Your task to perform on an android device: turn on showing notifications on the lock screen Image 0: 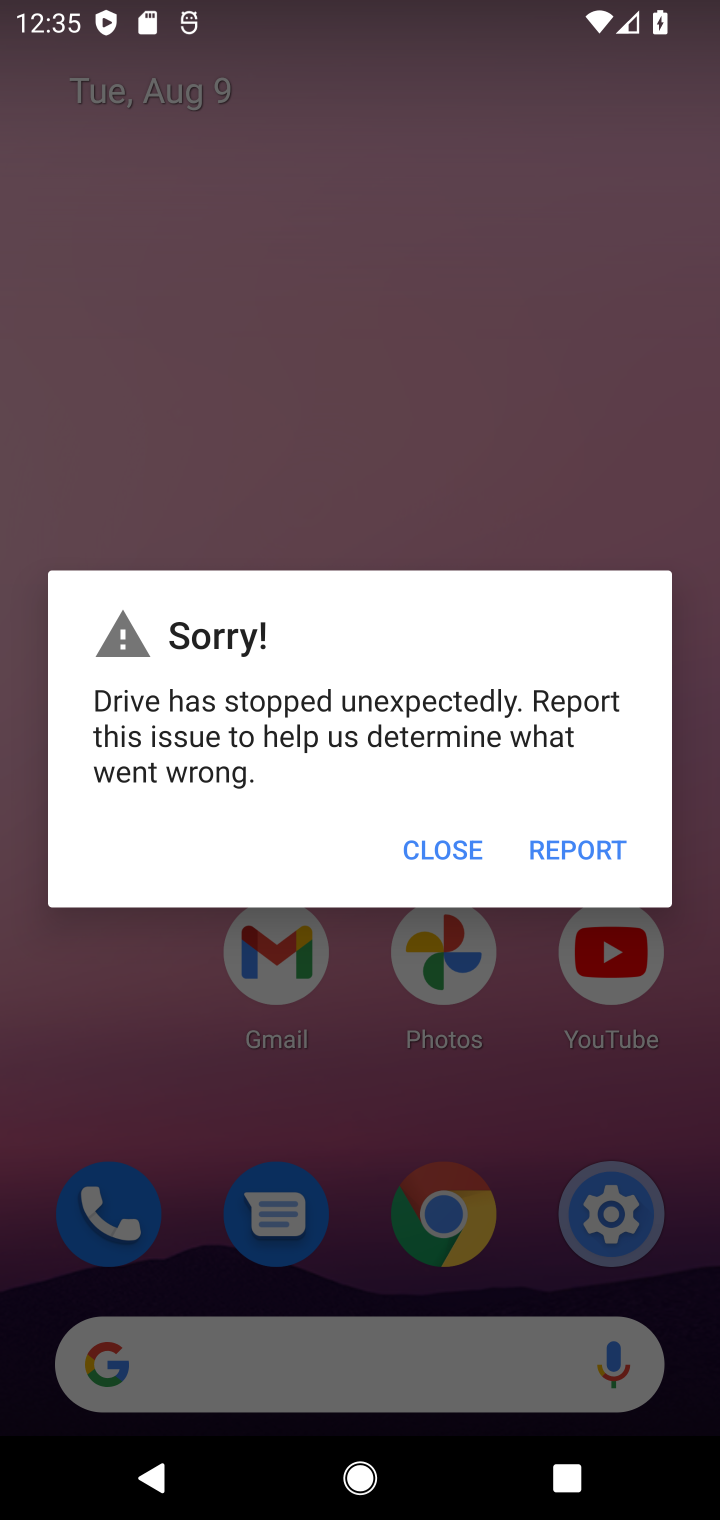
Step 0: press home button
Your task to perform on an android device: turn on showing notifications on the lock screen Image 1: 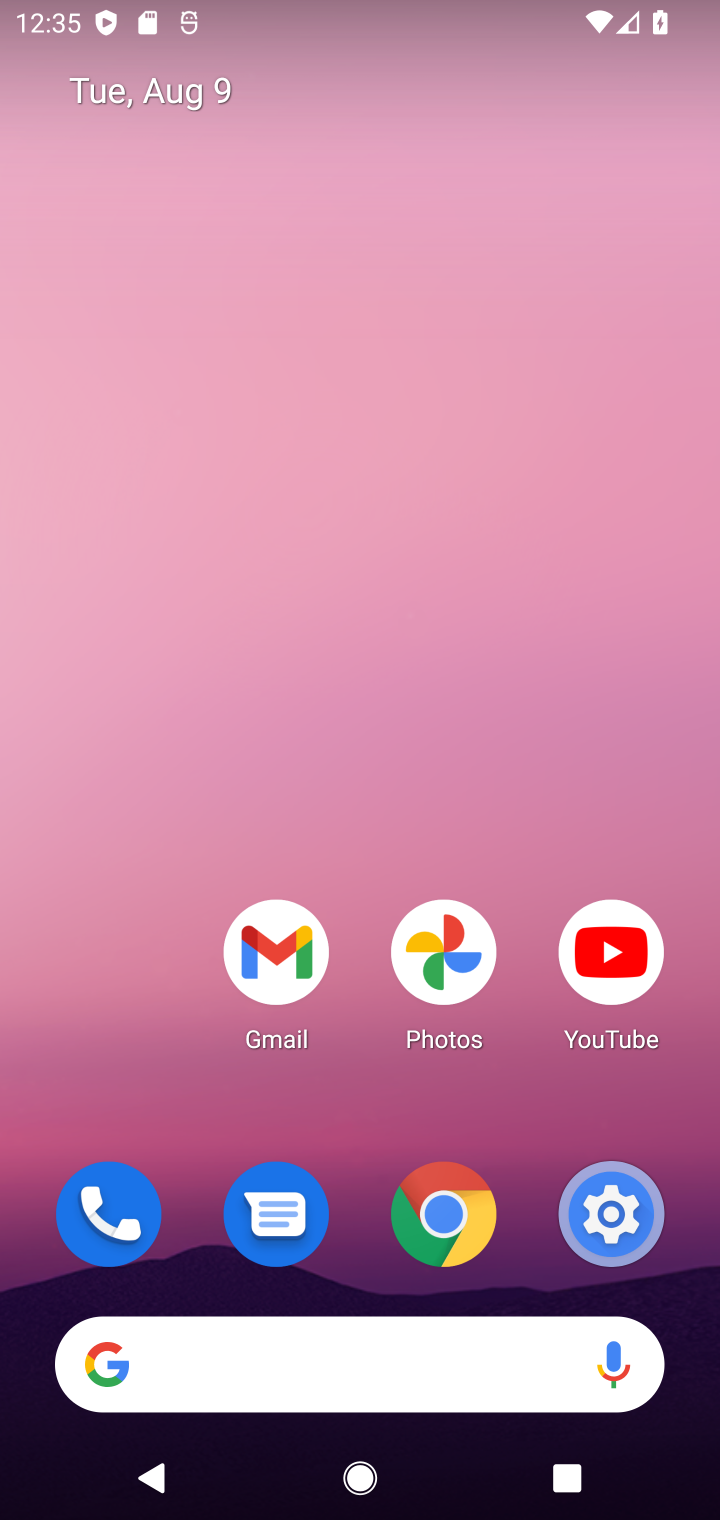
Step 1: click (613, 1224)
Your task to perform on an android device: turn on showing notifications on the lock screen Image 2: 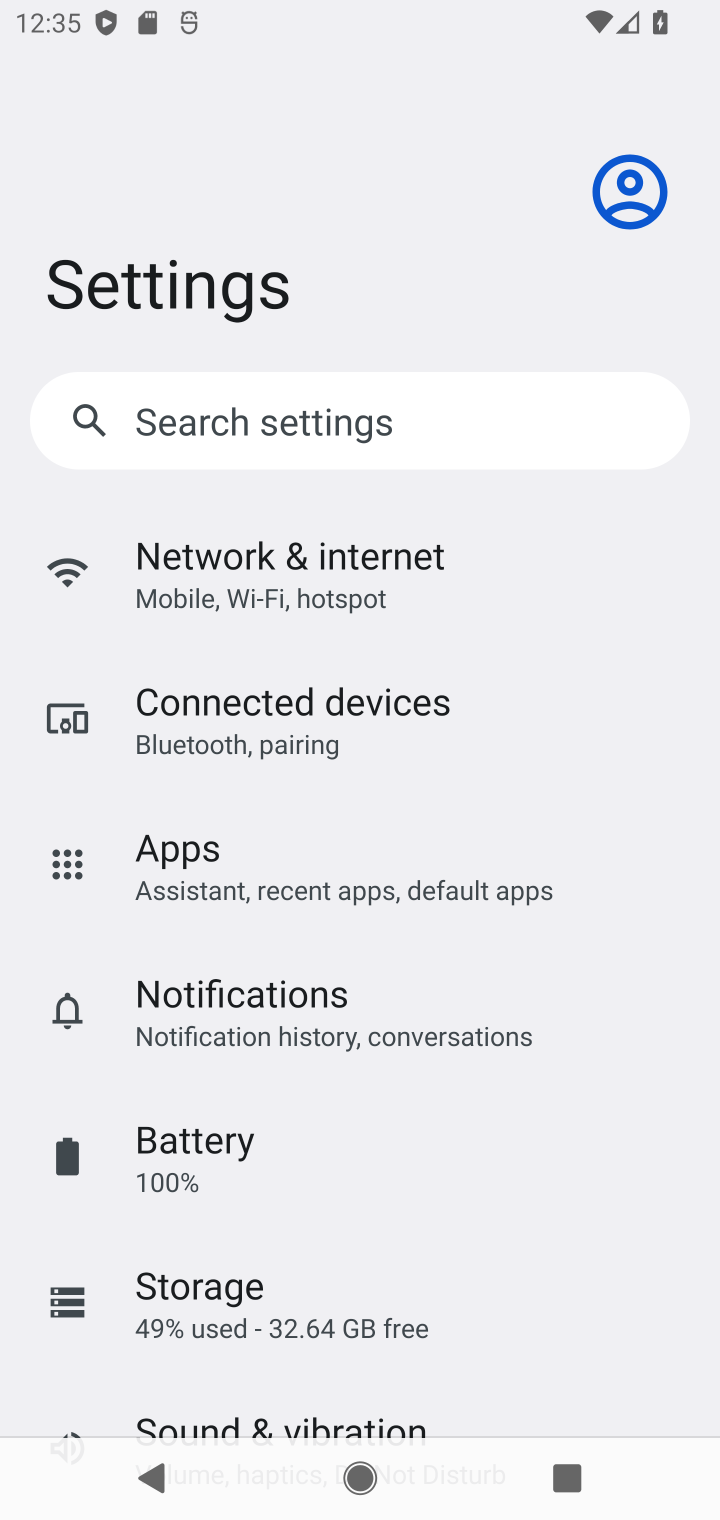
Step 2: press back button
Your task to perform on an android device: turn on showing notifications on the lock screen Image 3: 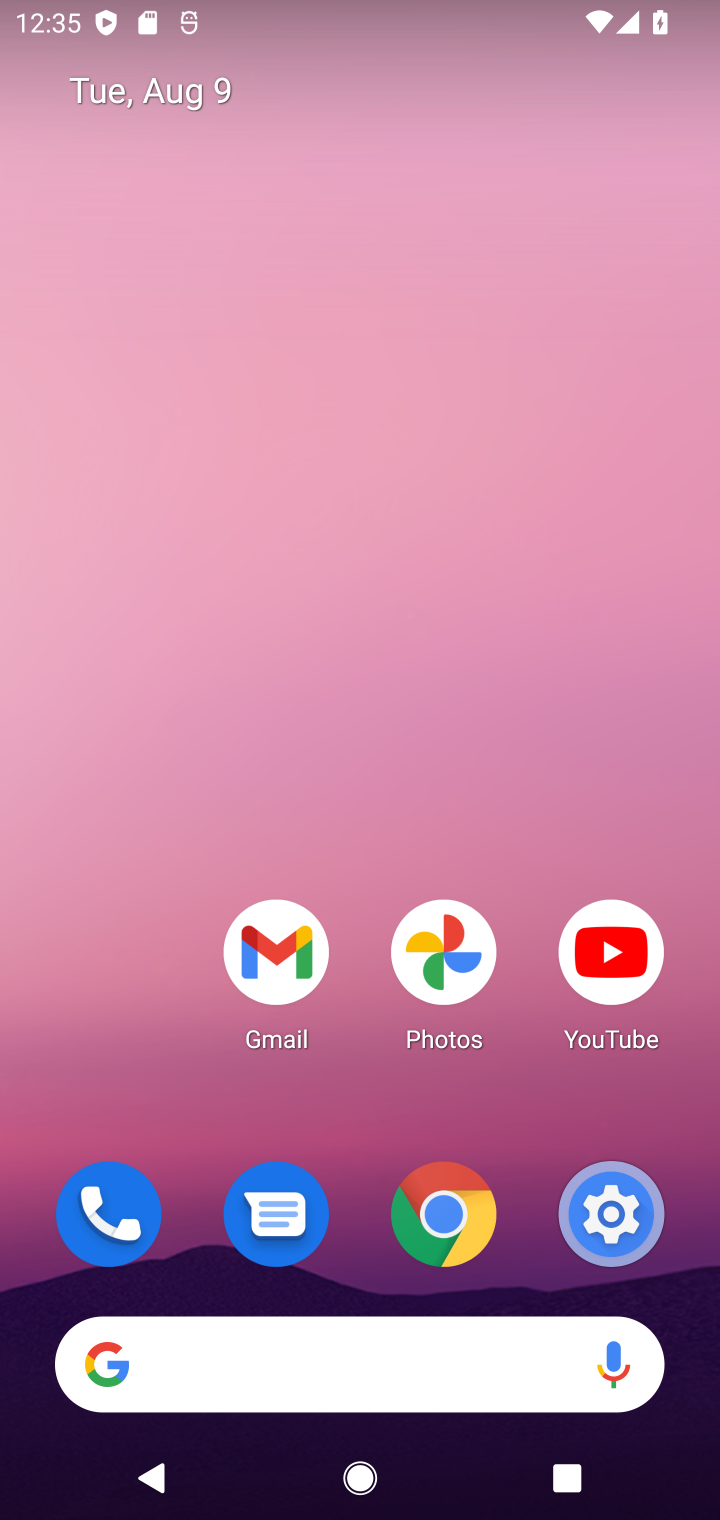
Step 3: click (622, 1215)
Your task to perform on an android device: turn on showing notifications on the lock screen Image 4: 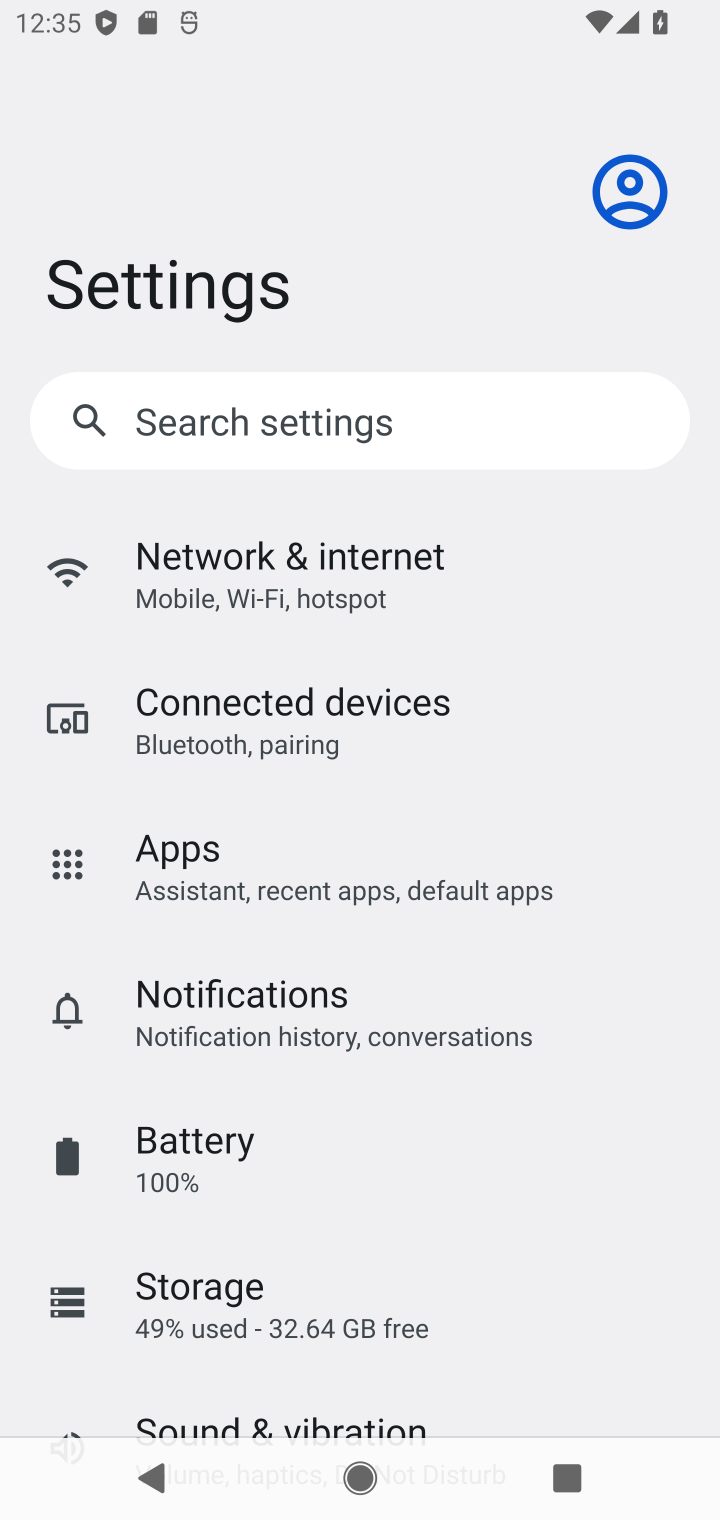
Step 4: click (237, 1285)
Your task to perform on an android device: turn on showing notifications on the lock screen Image 5: 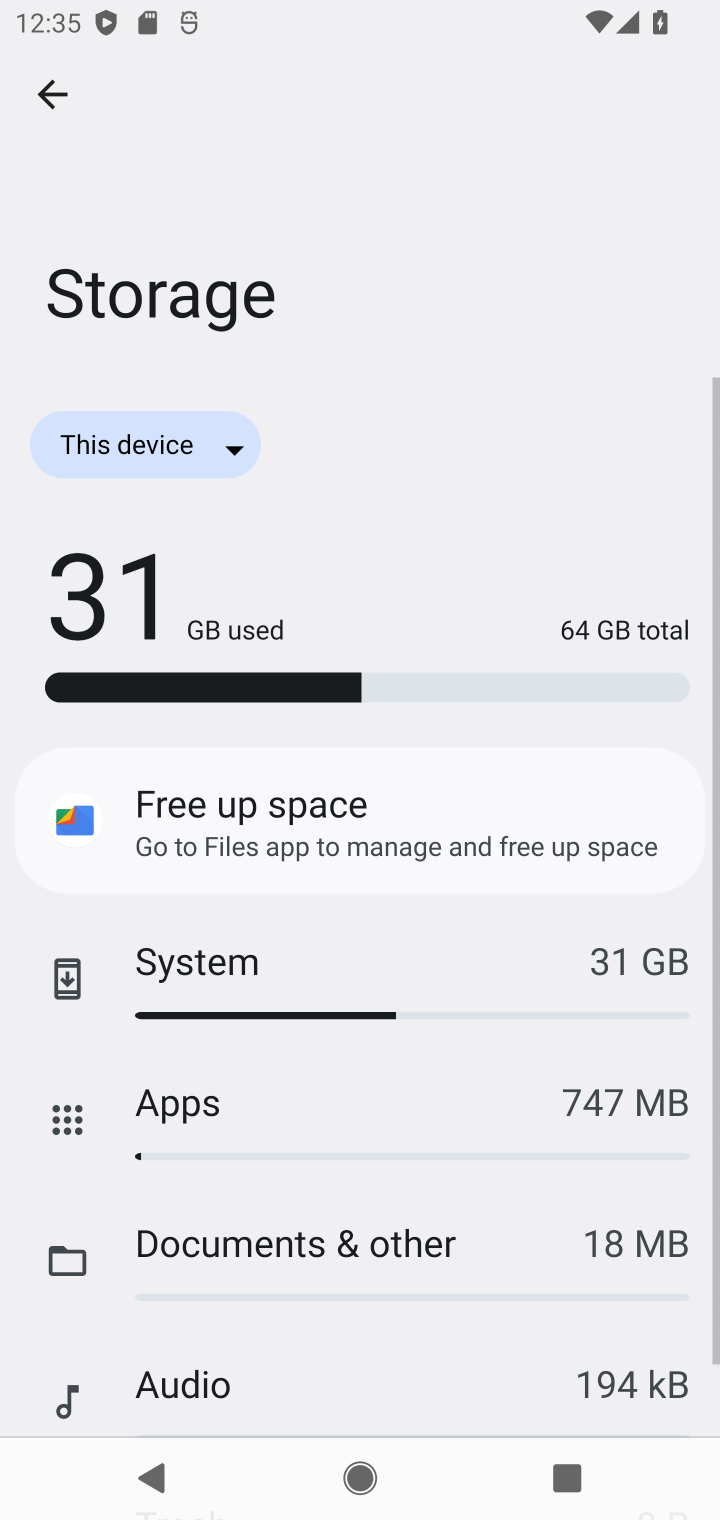
Step 5: click (63, 85)
Your task to perform on an android device: turn on showing notifications on the lock screen Image 6: 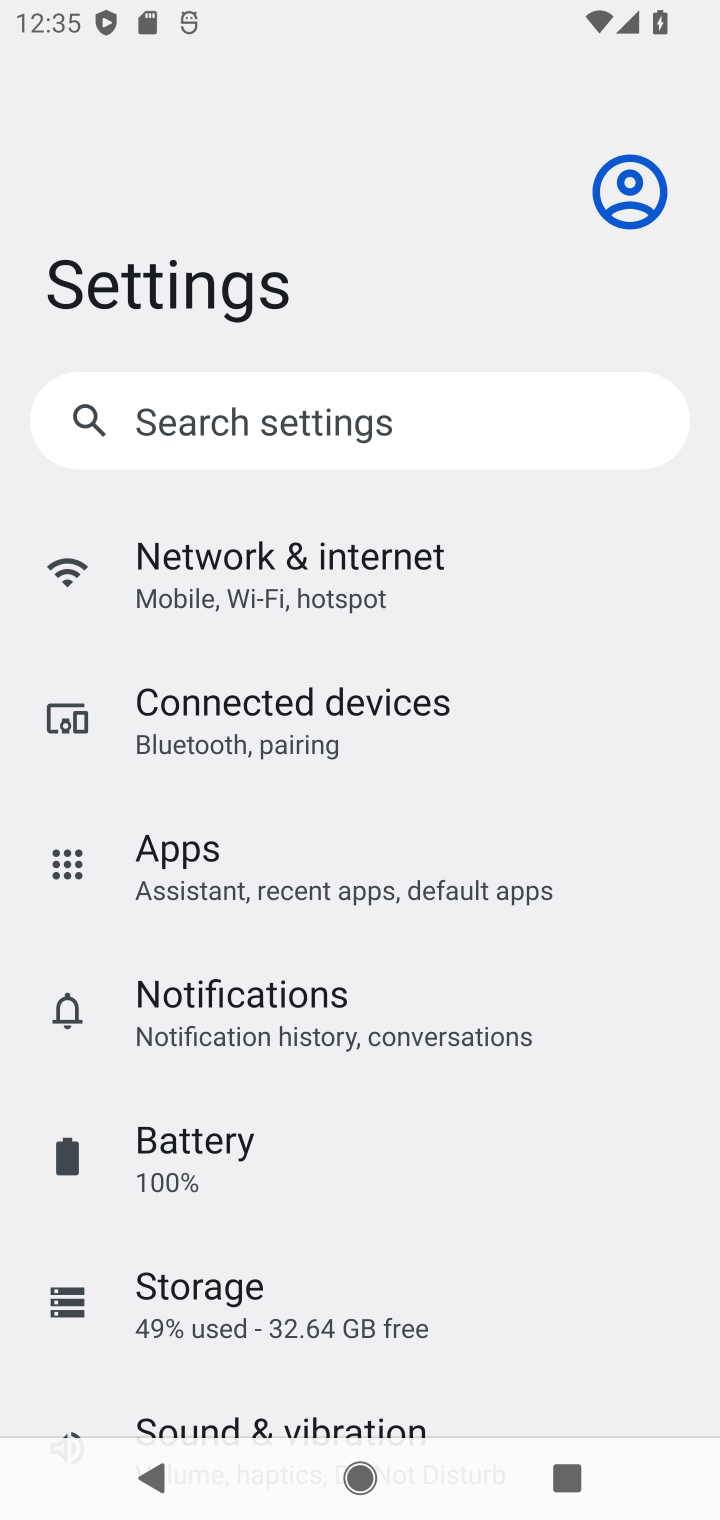
Step 6: drag from (256, 854) to (269, 702)
Your task to perform on an android device: turn on showing notifications on the lock screen Image 7: 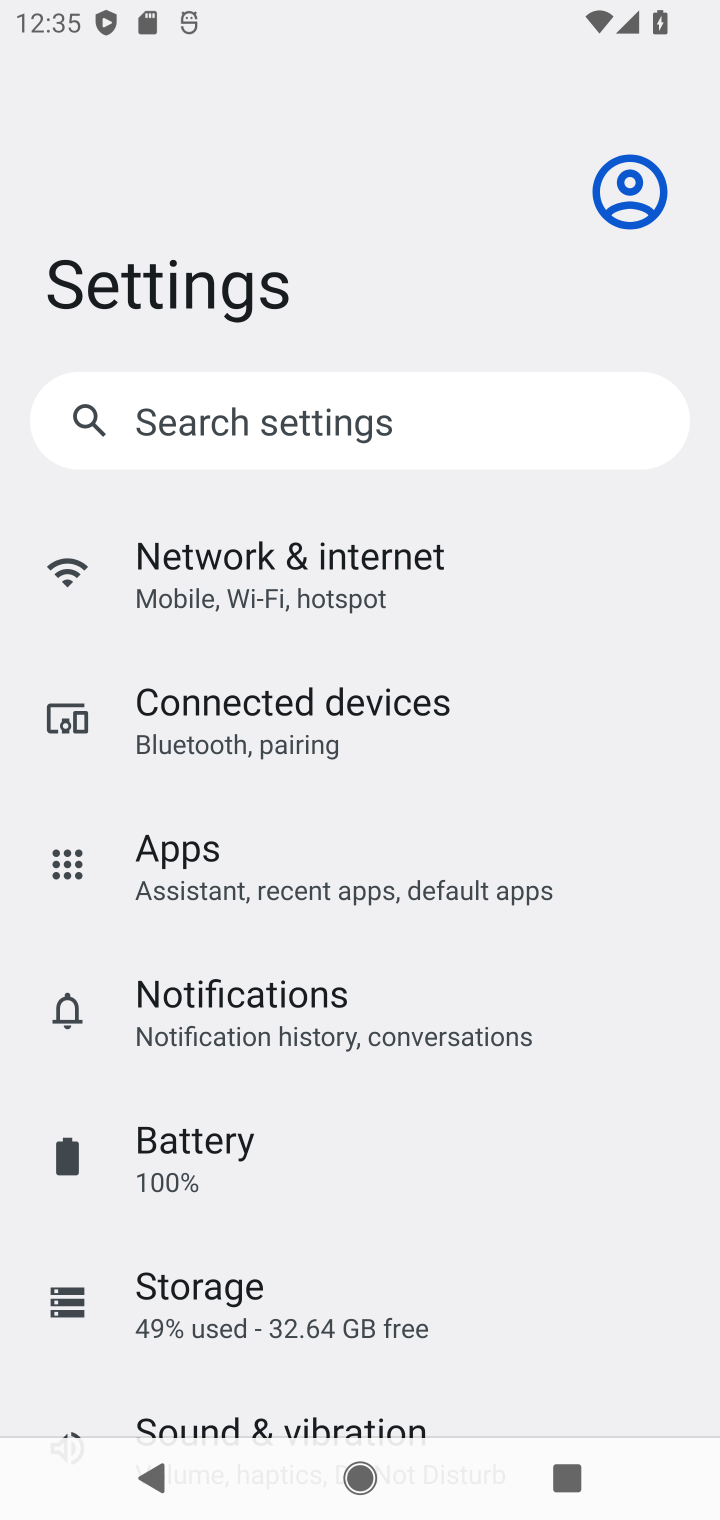
Step 7: drag from (398, 692) to (418, 508)
Your task to perform on an android device: turn on showing notifications on the lock screen Image 8: 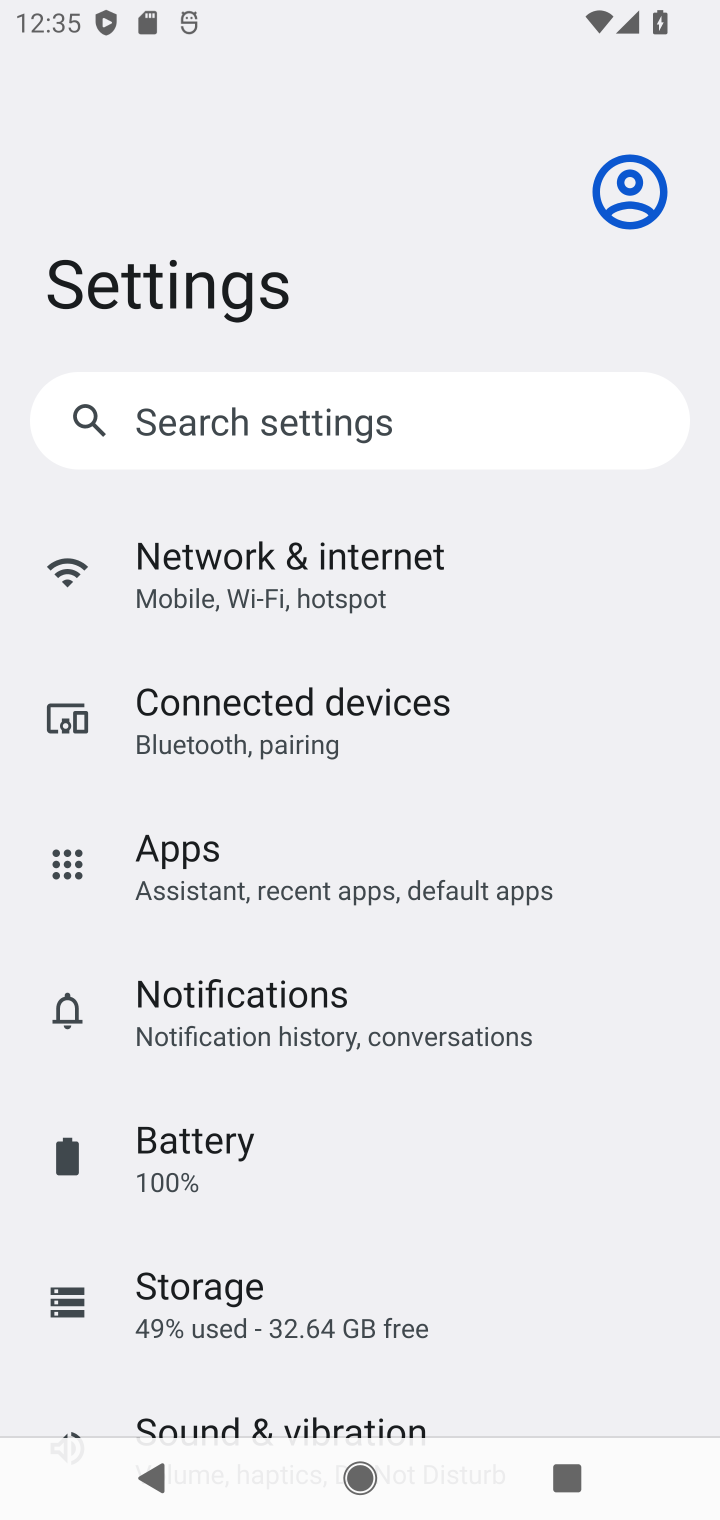
Step 8: drag from (333, 1242) to (395, 810)
Your task to perform on an android device: turn on showing notifications on the lock screen Image 9: 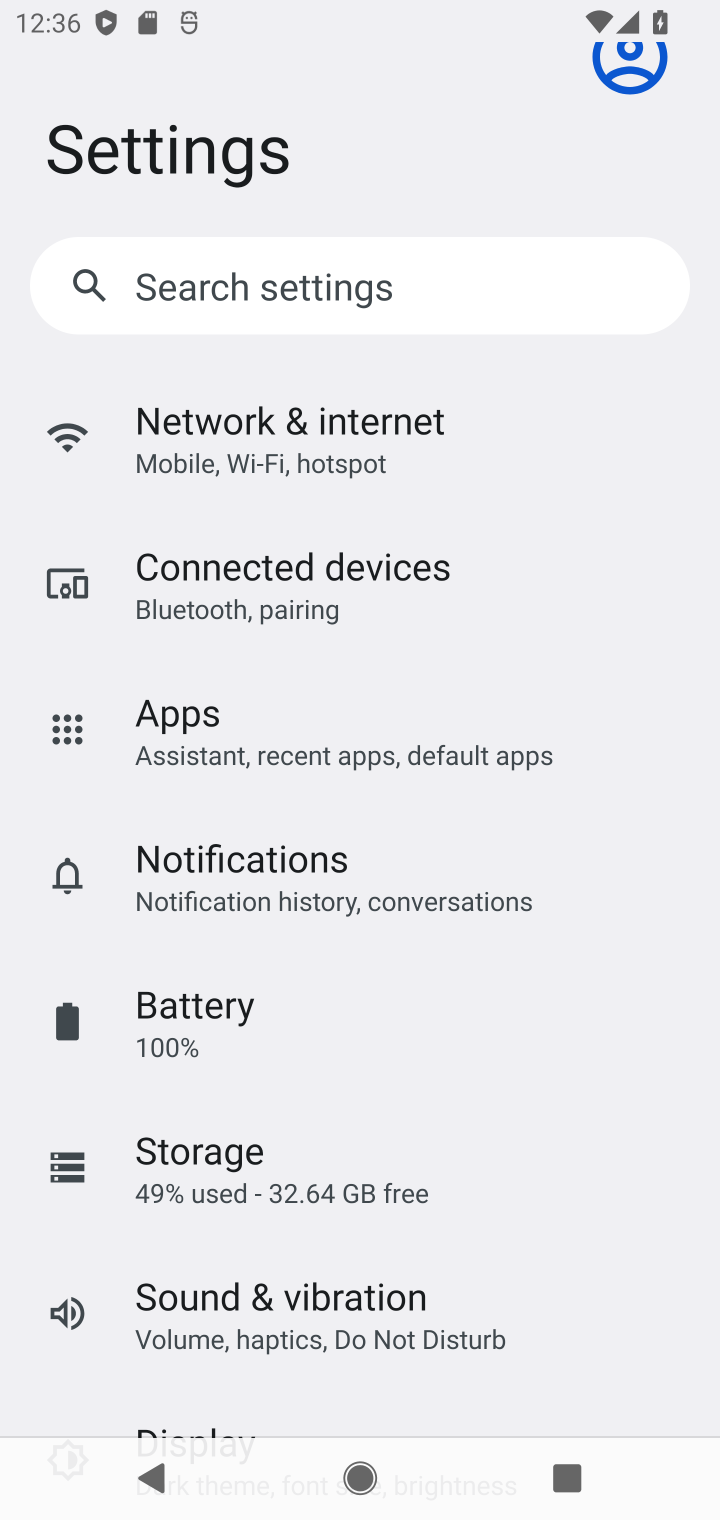
Step 9: drag from (318, 1165) to (376, 806)
Your task to perform on an android device: turn on showing notifications on the lock screen Image 10: 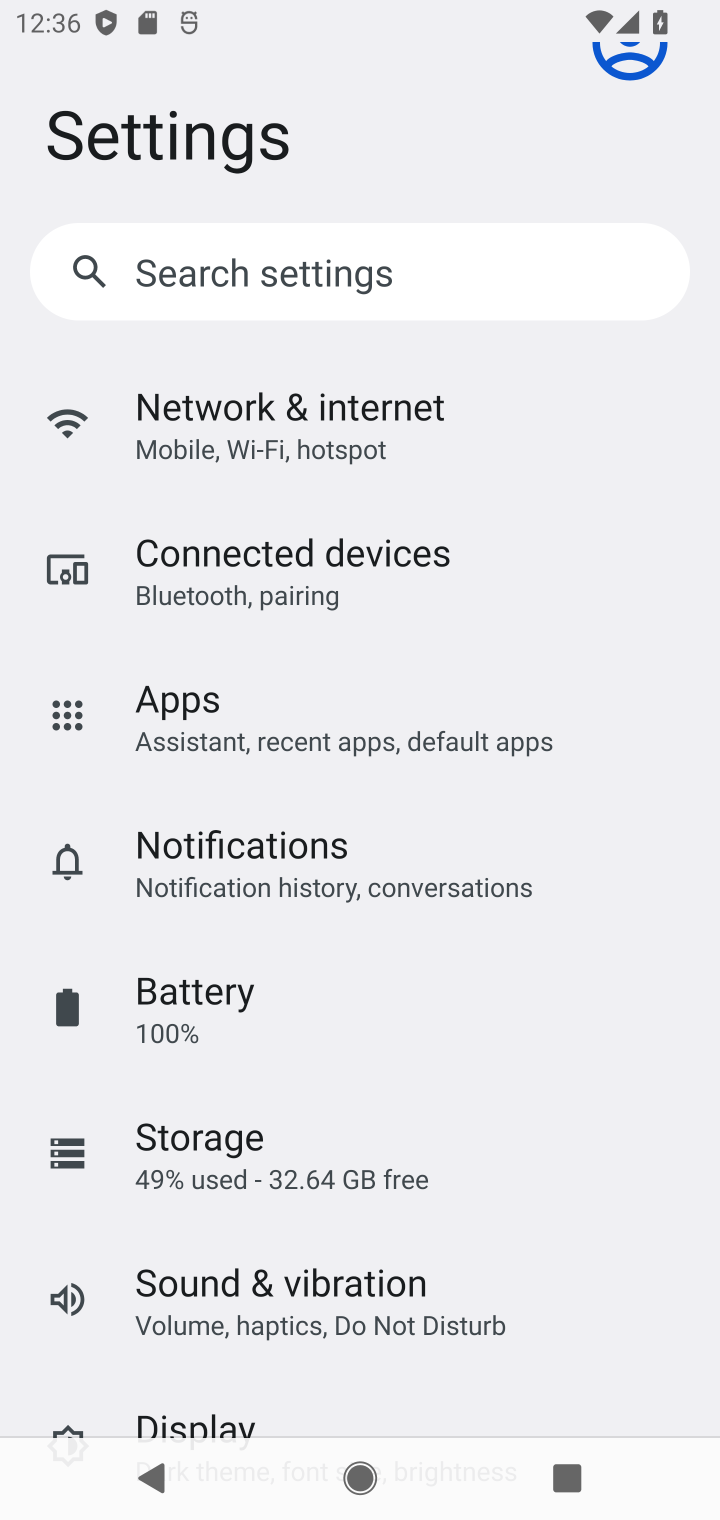
Step 10: drag from (346, 1286) to (343, 630)
Your task to perform on an android device: turn on showing notifications on the lock screen Image 11: 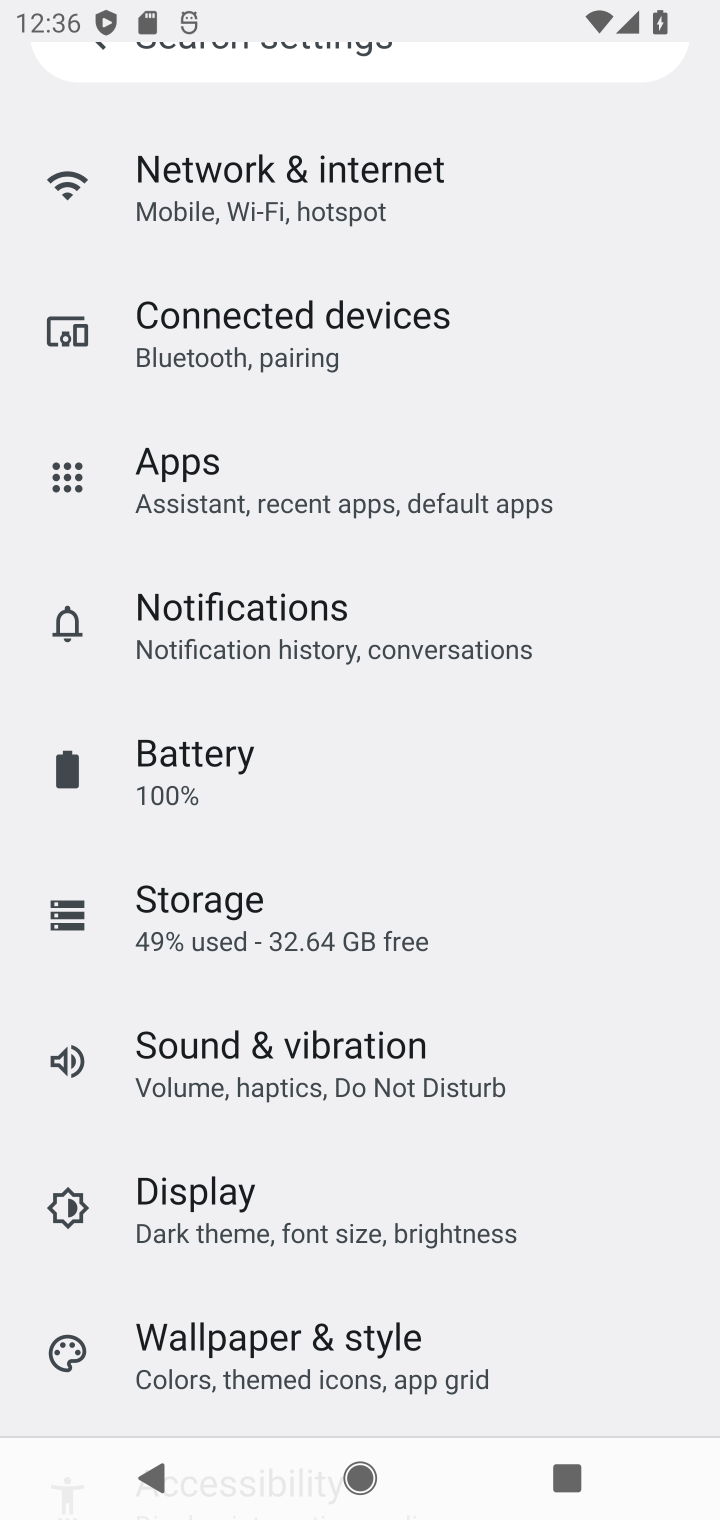
Step 11: click (272, 617)
Your task to perform on an android device: turn on showing notifications on the lock screen Image 12: 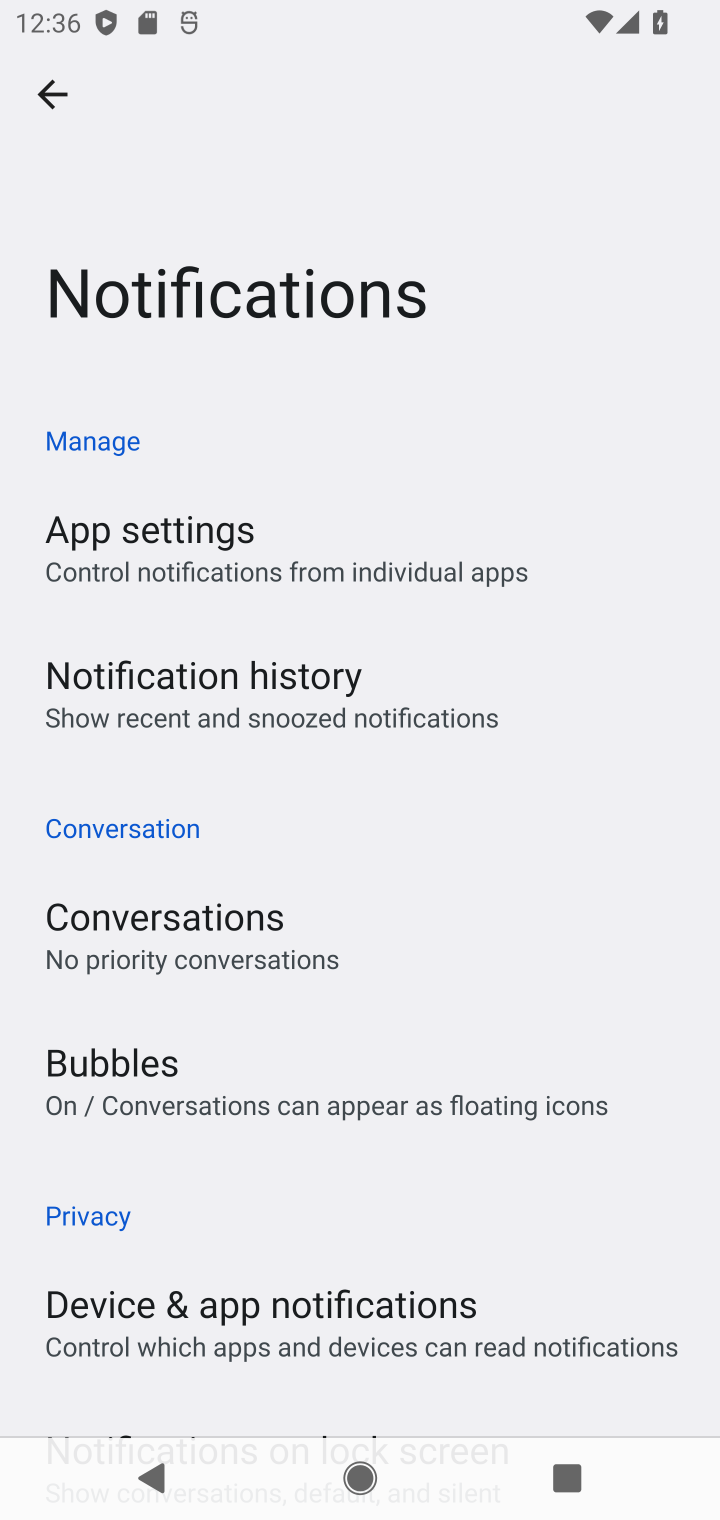
Step 12: drag from (406, 1370) to (379, 703)
Your task to perform on an android device: turn on showing notifications on the lock screen Image 13: 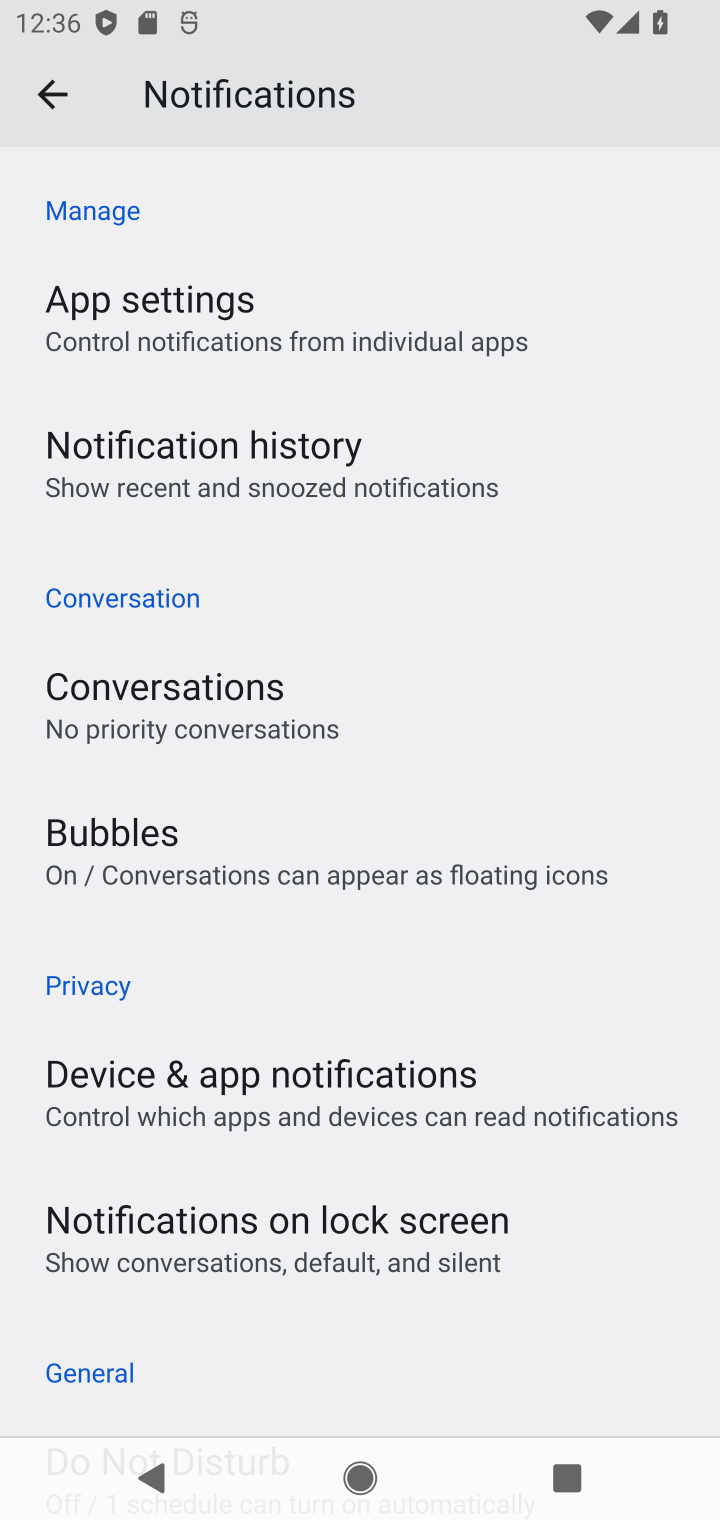
Step 13: click (260, 1237)
Your task to perform on an android device: turn on showing notifications on the lock screen Image 14: 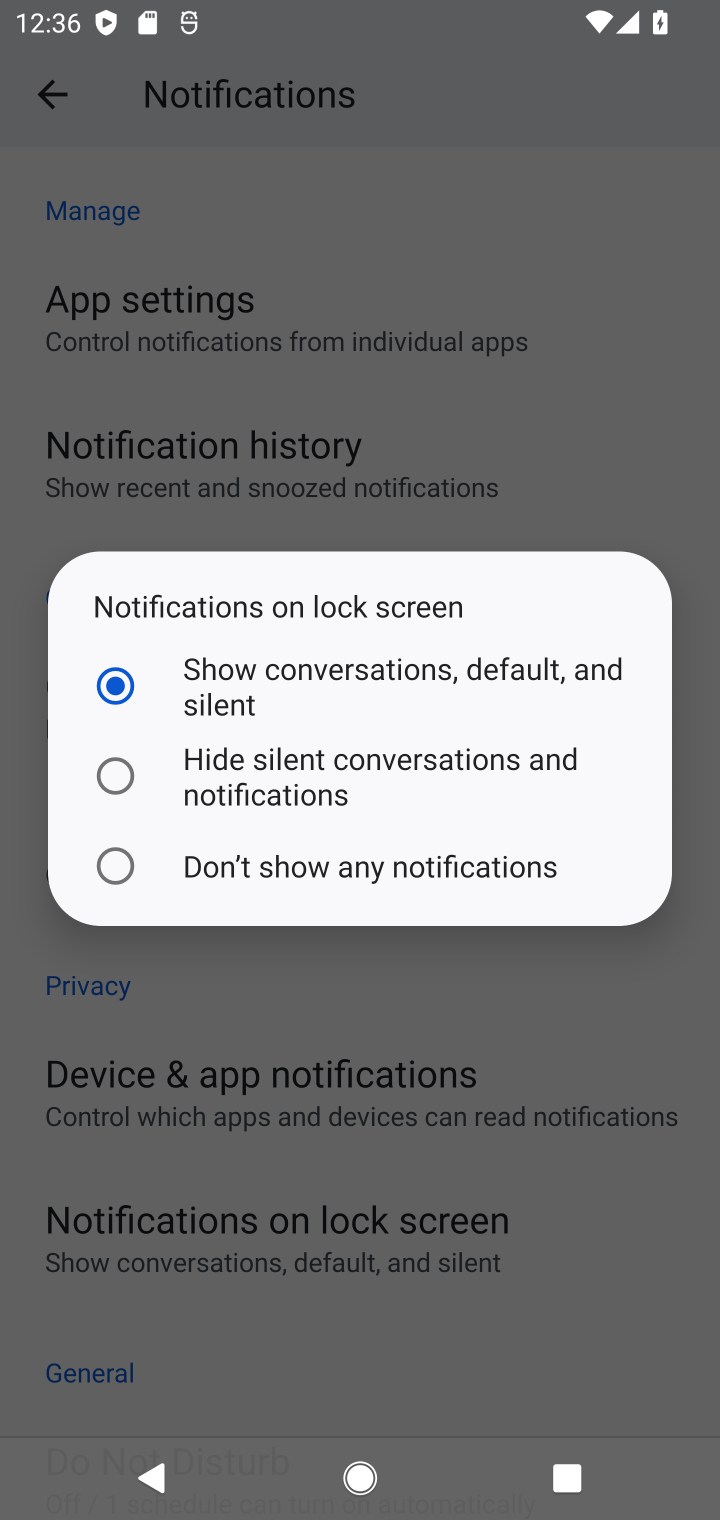
Step 14: task complete